Your task to perform on an android device: add a label to a message in the gmail app Image 0: 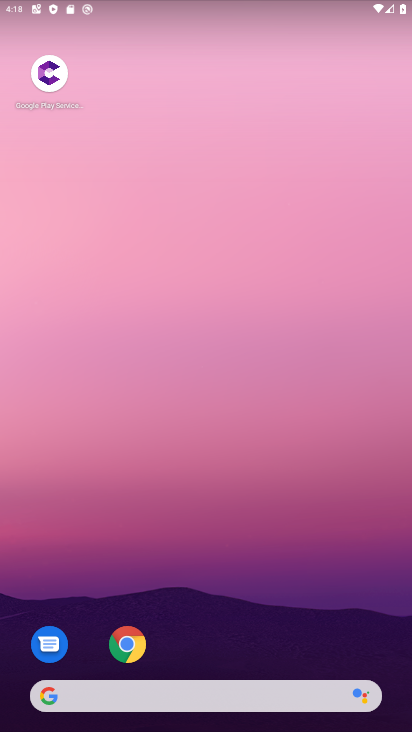
Step 0: drag from (260, 665) to (152, 129)
Your task to perform on an android device: add a label to a message in the gmail app Image 1: 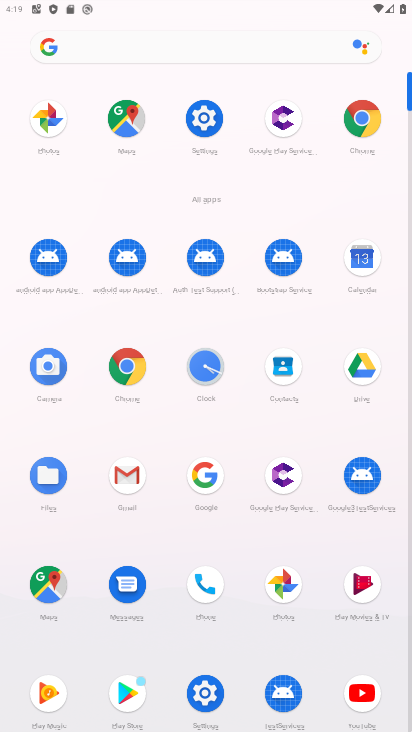
Step 1: click (136, 469)
Your task to perform on an android device: add a label to a message in the gmail app Image 2: 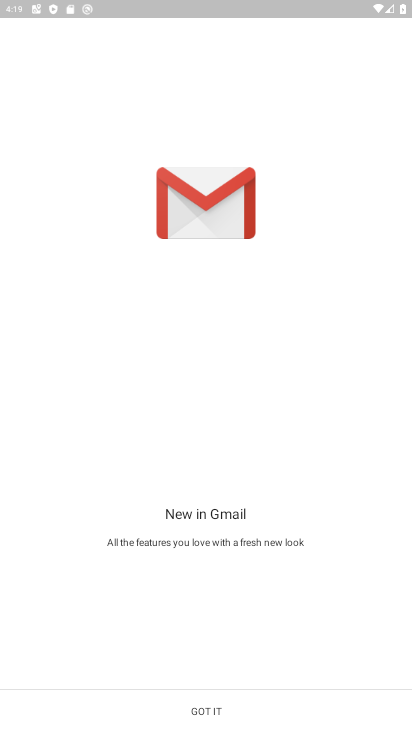
Step 2: click (228, 721)
Your task to perform on an android device: add a label to a message in the gmail app Image 3: 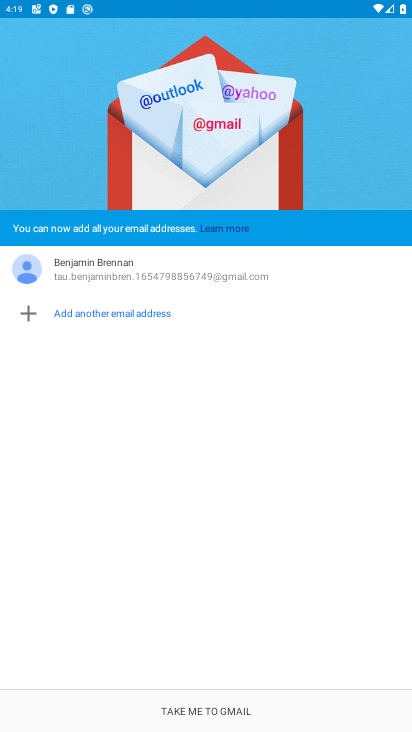
Step 3: click (222, 711)
Your task to perform on an android device: add a label to a message in the gmail app Image 4: 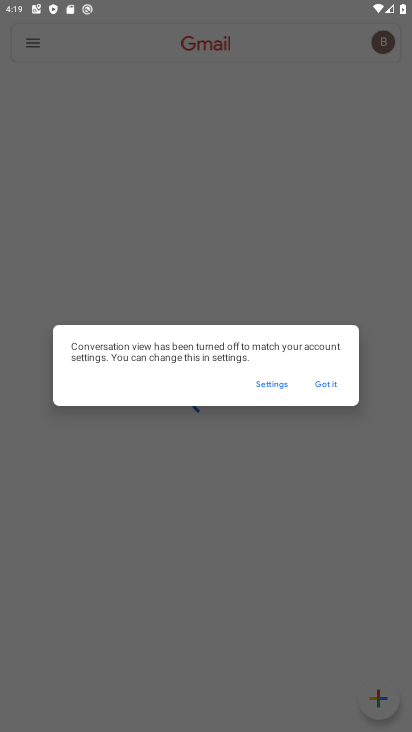
Step 4: click (316, 386)
Your task to perform on an android device: add a label to a message in the gmail app Image 5: 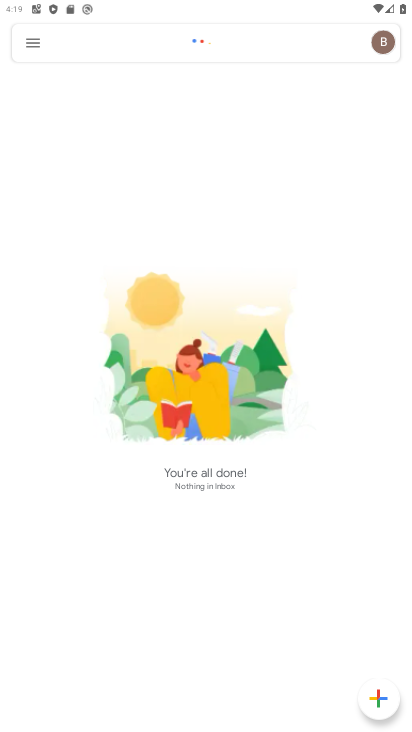
Step 5: task complete